Your task to perform on an android device: Go to battery settings Image 0: 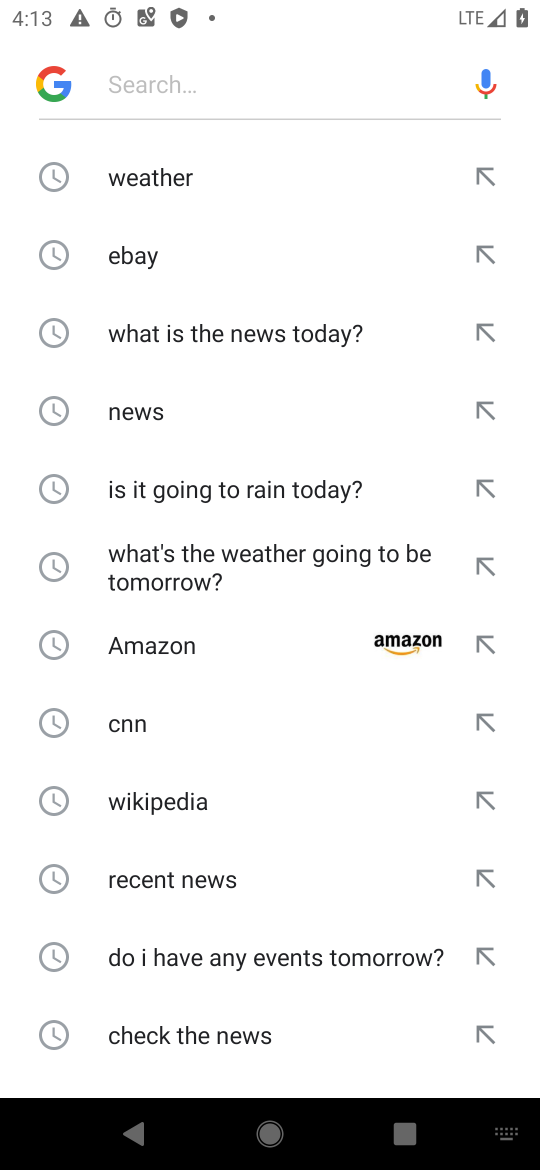
Step 0: drag from (347, 9) to (227, 834)
Your task to perform on an android device: Go to battery settings Image 1: 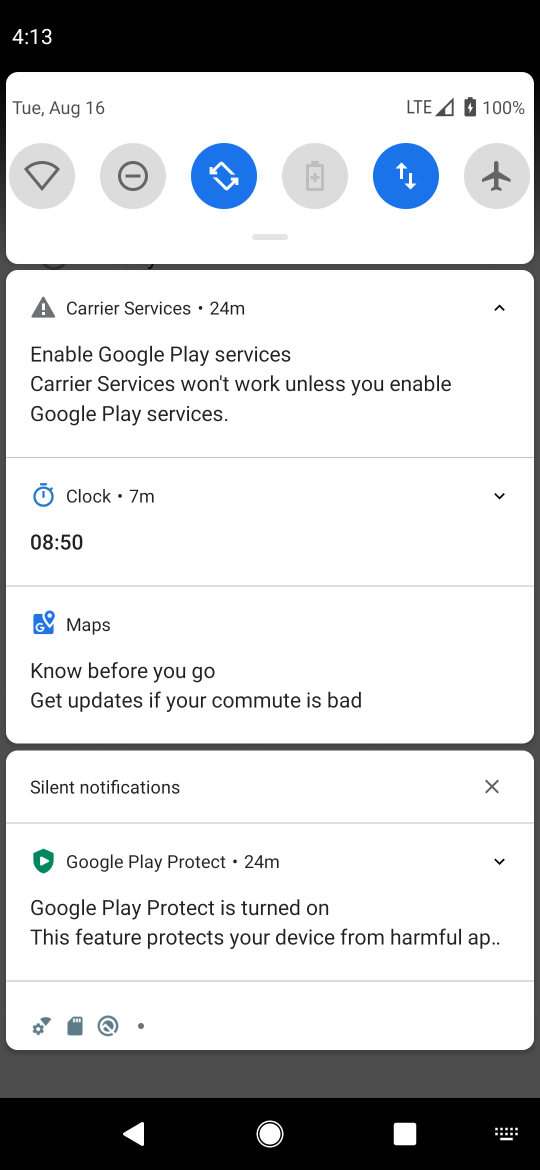
Step 1: click (330, 174)
Your task to perform on an android device: Go to battery settings Image 2: 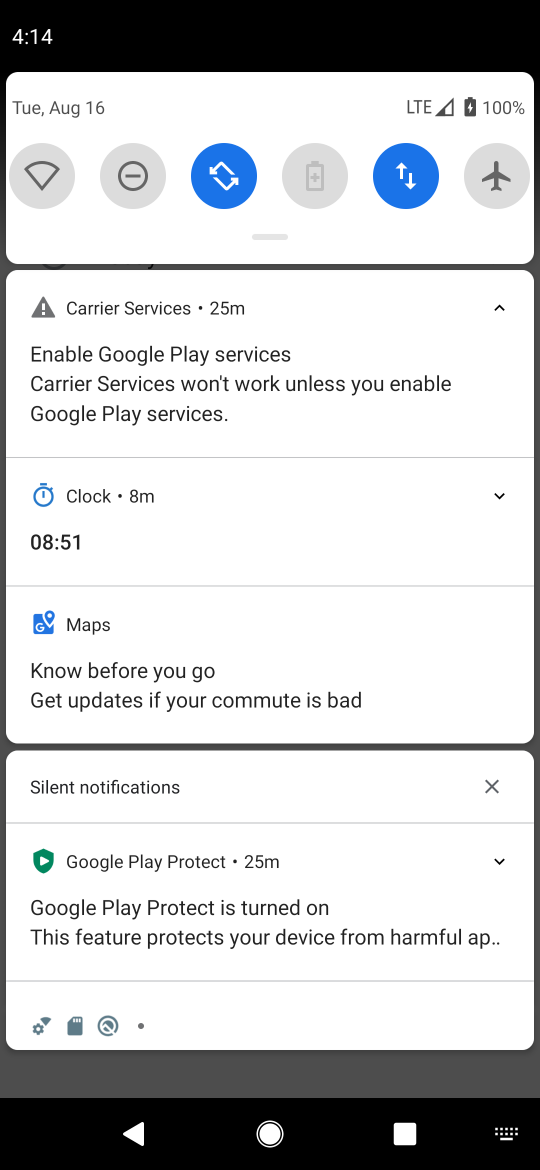
Step 2: click (333, 174)
Your task to perform on an android device: Go to battery settings Image 3: 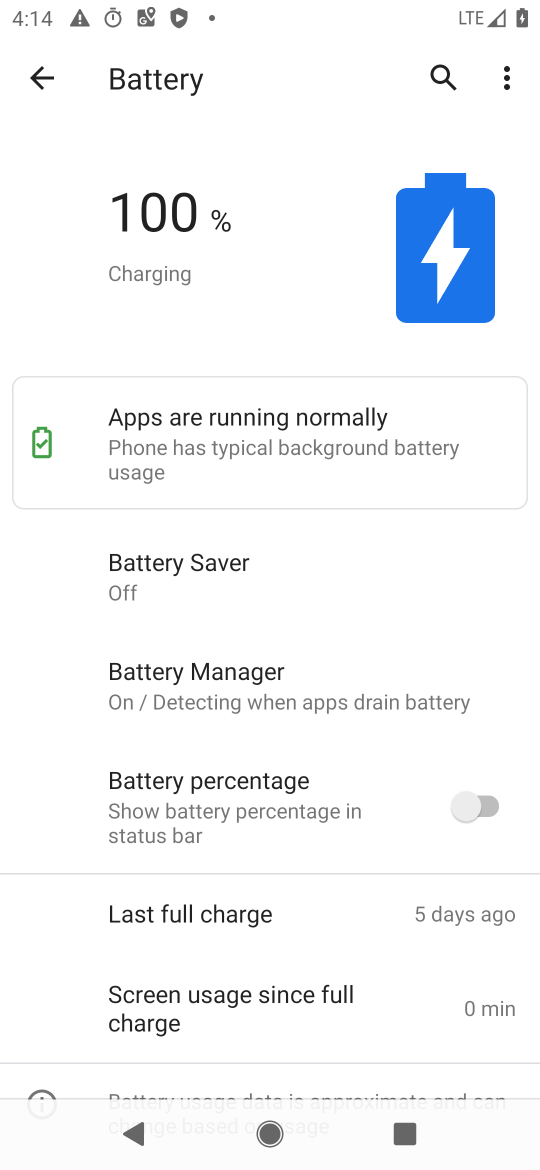
Step 3: task complete